Your task to perform on an android device: find photos in the google photos app Image 0: 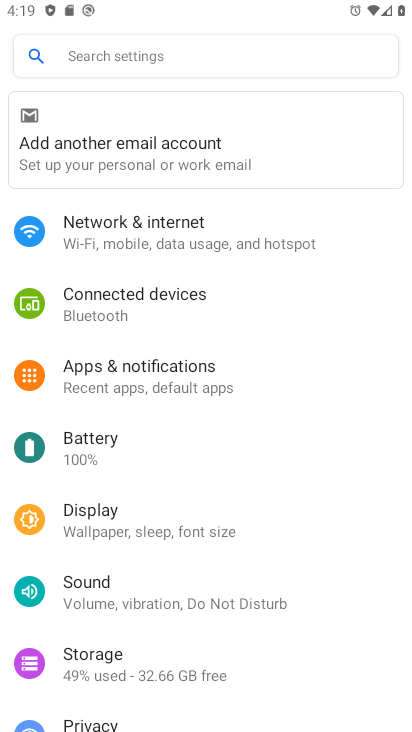
Step 0: press home button
Your task to perform on an android device: find photos in the google photos app Image 1: 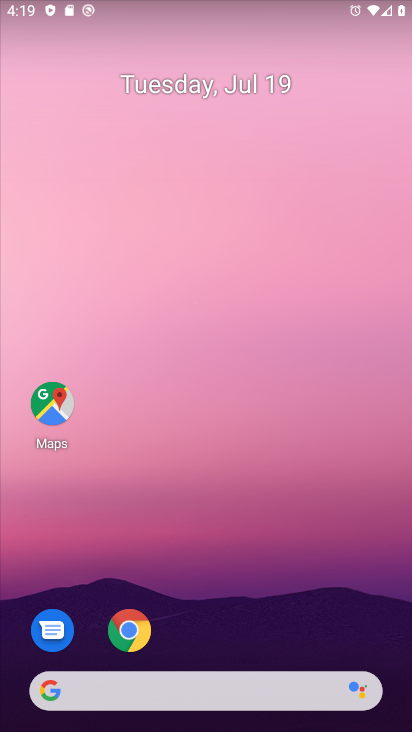
Step 1: drag from (184, 589) to (251, 40)
Your task to perform on an android device: find photos in the google photos app Image 2: 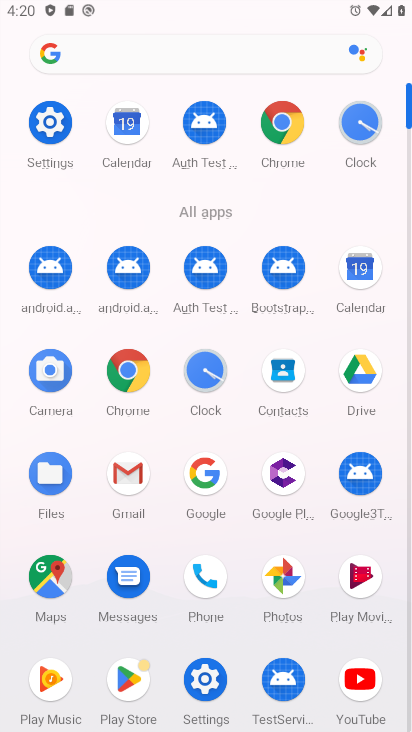
Step 2: click (283, 587)
Your task to perform on an android device: find photos in the google photos app Image 3: 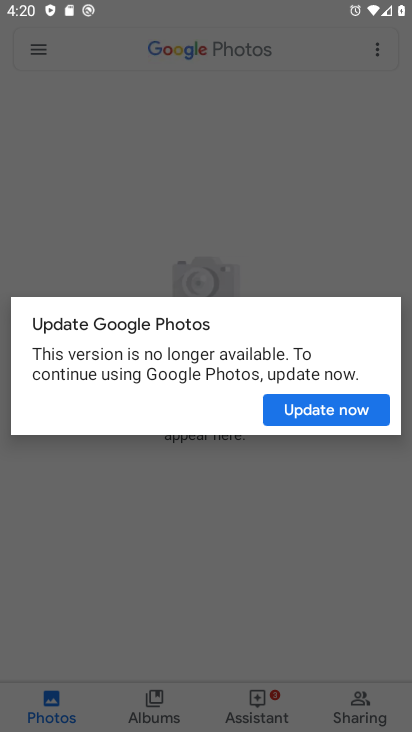
Step 3: click (285, 402)
Your task to perform on an android device: find photos in the google photos app Image 4: 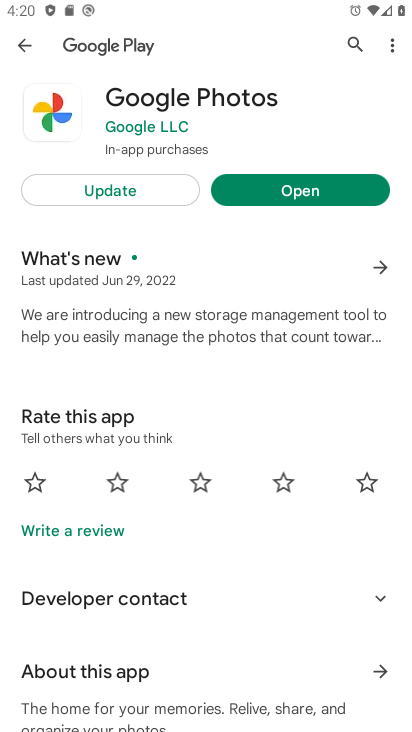
Step 4: click (76, 189)
Your task to perform on an android device: find photos in the google photos app Image 5: 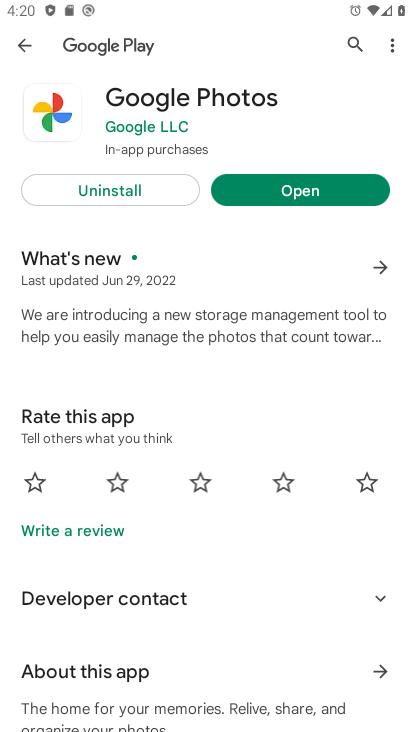
Step 5: click (328, 189)
Your task to perform on an android device: find photos in the google photos app Image 6: 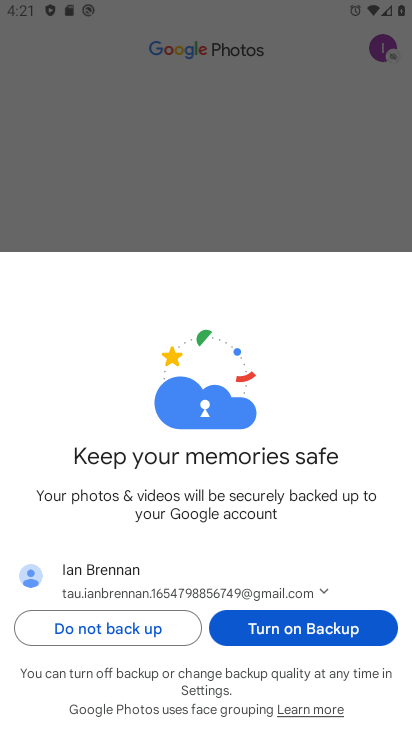
Step 6: click (115, 619)
Your task to perform on an android device: find photos in the google photos app Image 7: 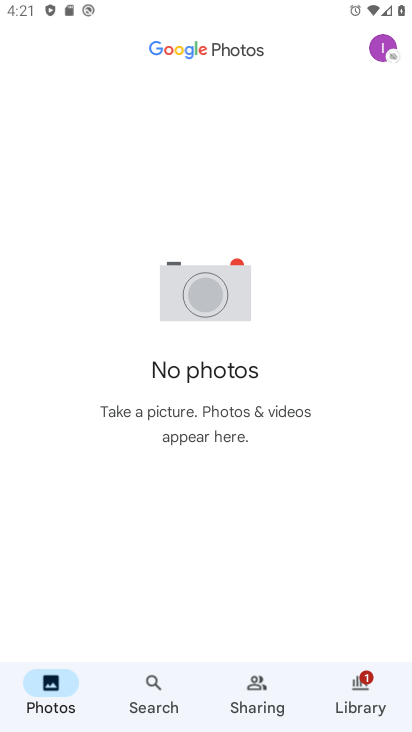
Step 7: task complete